Your task to perform on an android device: Search for vegetarian restaurants on Maps Image 0: 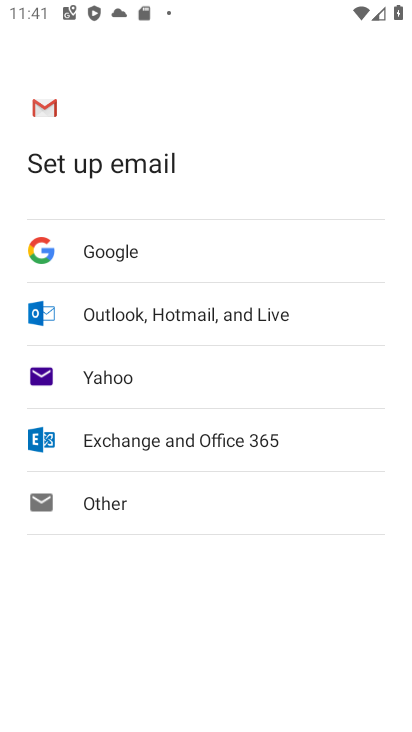
Step 0: press home button
Your task to perform on an android device: Search for vegetarian restaurants on Maps Image 1: 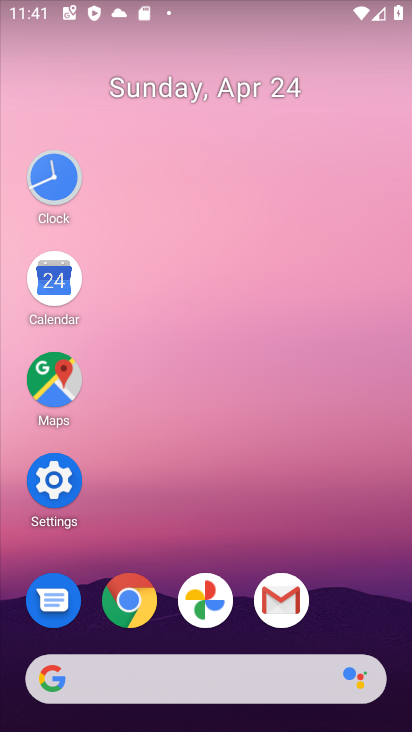
Step 1: click (52, 388)
Your task to perform on an android device: Search for vegetarian restaurants on Maps Image 2: 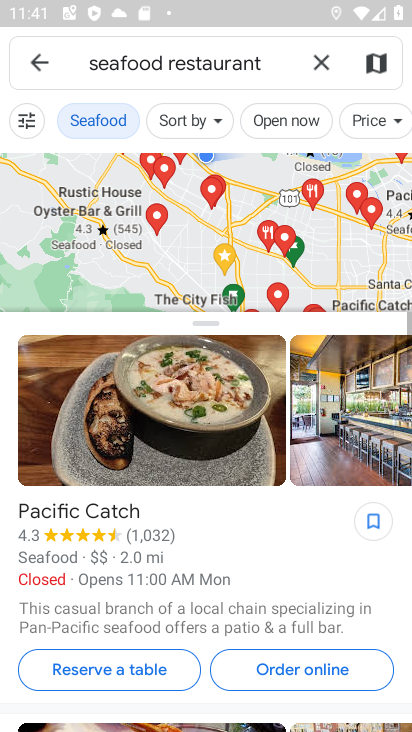
Step 2: click (322, 59)
Your task to perform on an android device: Search for vegetarian restaurants on Maps Image 3: 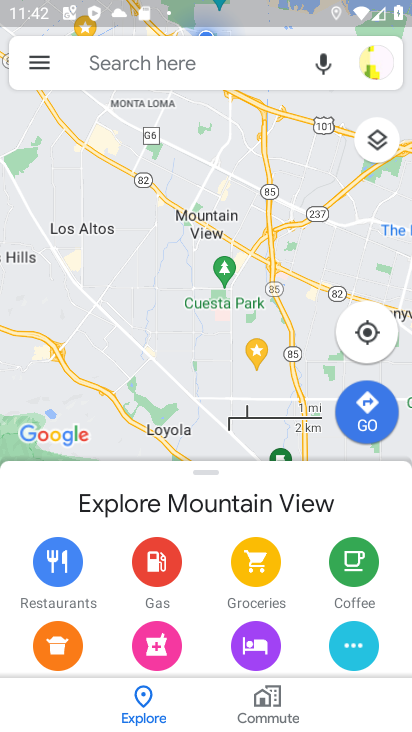
Step 3: click (199, 59)
Your task to perform on an android device: Search for vegetarian restaurants on Maps Image 4: 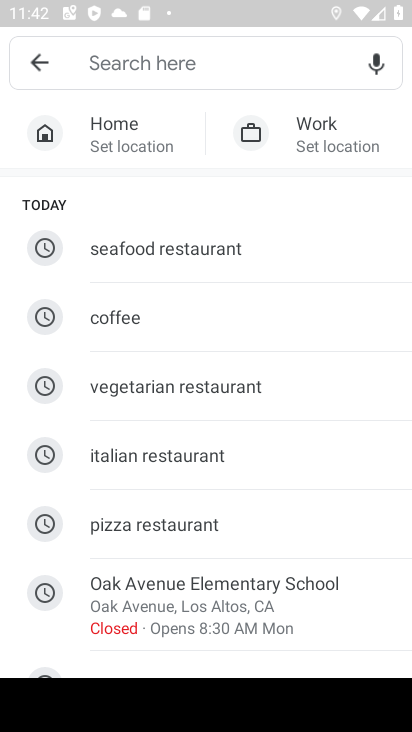
Step 4: click (205, 379)
Your task to perform on an android device: Search for vegetarian restaurants on Maps Image 5: 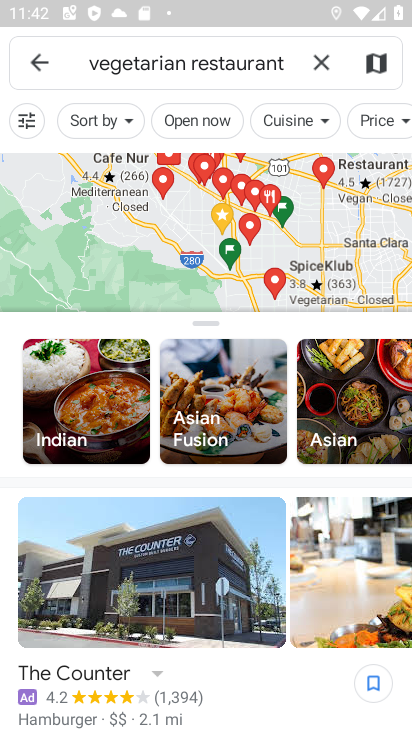
Step 5: task complete